Your task to perform on an android device: change alarm snooze length Image 0: 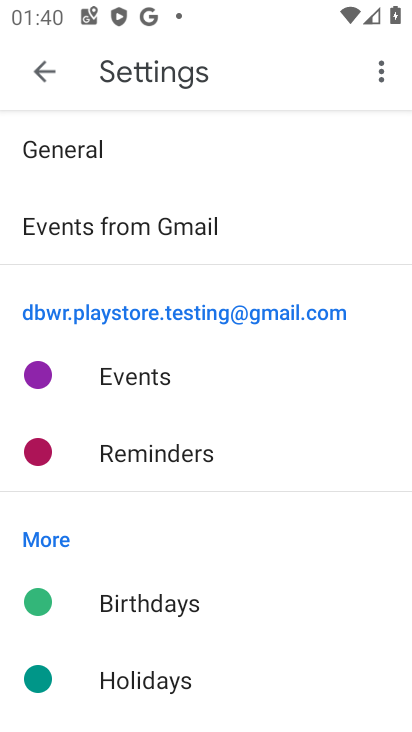
Step 0: press home button
Your task to perform on an android device: change alarm snooze length Image 1: 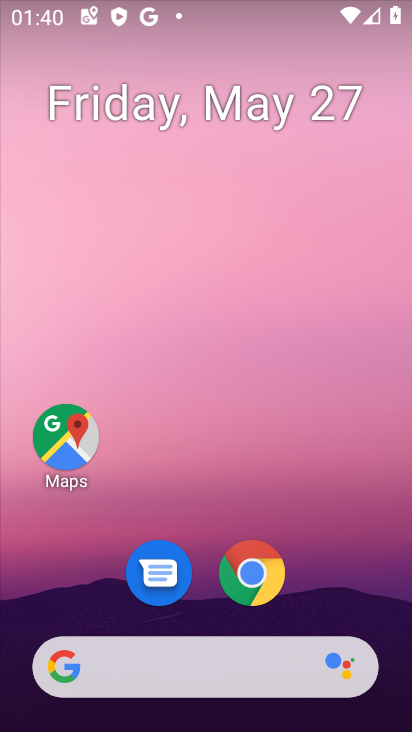
Step 1: drag from (211, 624) to (215, 135)
Your task to perform on an android device: change alarm snooze length Image 2: 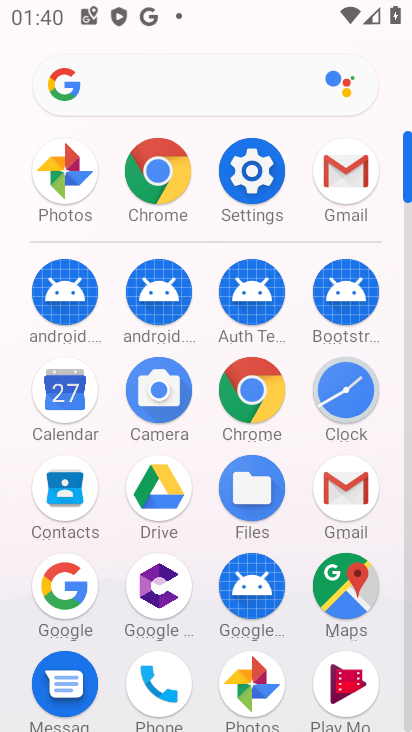
Step 2: click (332, 400)
Your task to perform on an android device: change alarm snooze length Image 3: 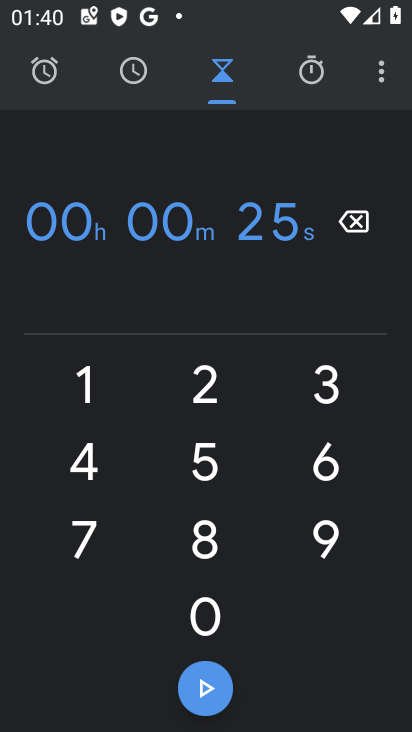
Step 3: click (373, 78)
Your task to perform on an android device: change alarm snooze length Image 4: 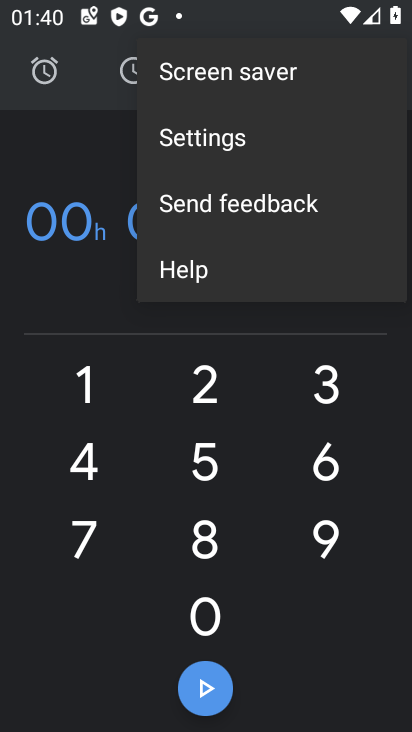
Step 4: click (206, 128)
Your task to perform on an android device: change alarm snooze length Image 5: 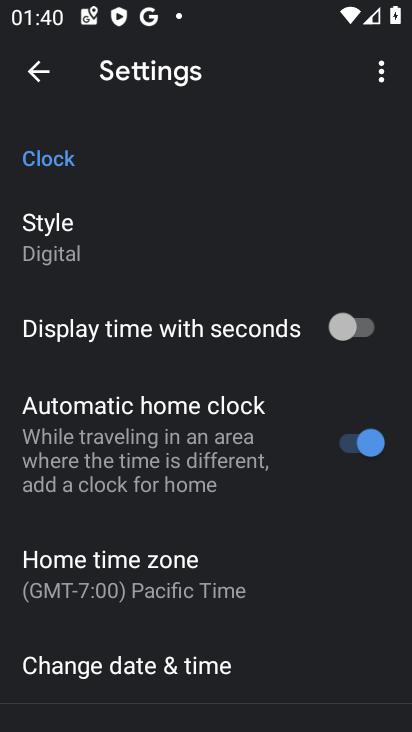
Step 5: drag from (165, 587) to (129, 252)
Your task to perform on an android device: change alarm snooze length Image 6: 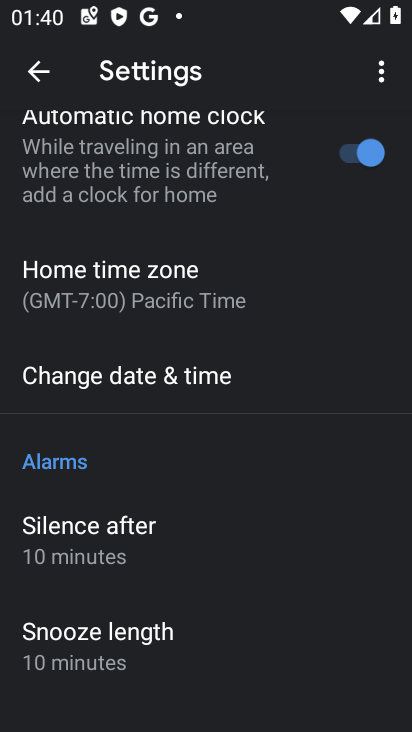
Step 6: click (131, 648)
Your task to perform on an android device: change alarm snooze length Image 7: 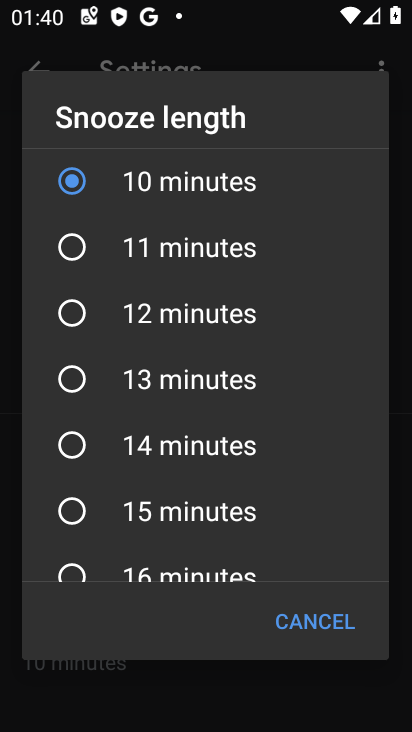
Step 7: click (167, 241)
Your task to perform on an android device: change alarm snooze length Image 8: 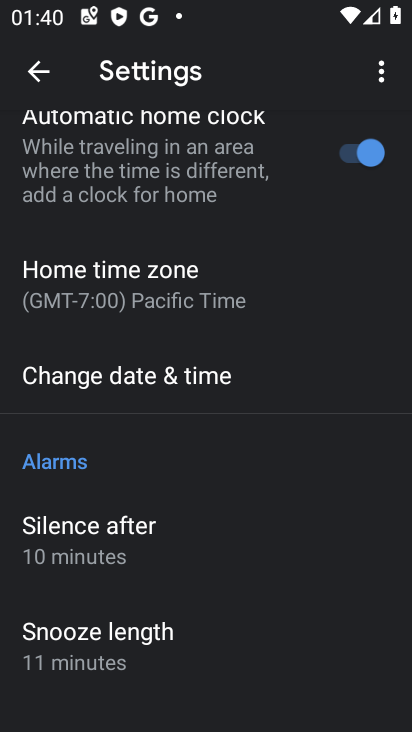
Step 8: task complete